Your task to perform on an android device: turn off notifications in google photos Image 0: 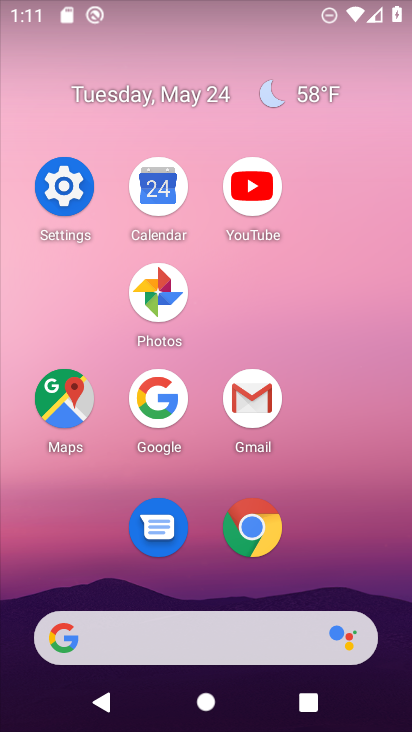
Step 0: click (176, 289)
Your task to perform on an android device: turn off notifications in google photos Image 1: 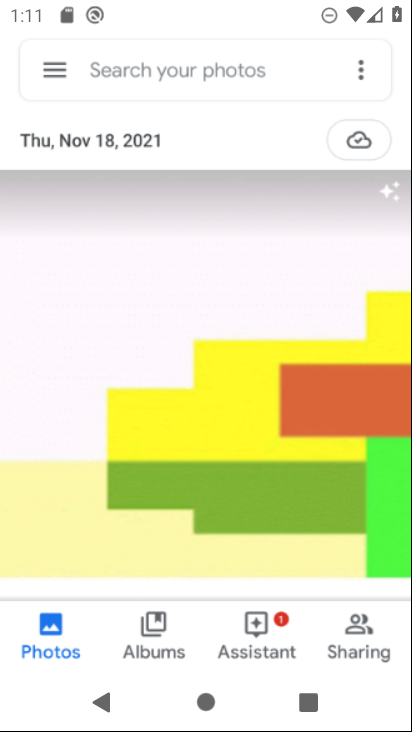
Step 1: click (53, 62)
Your task to perform on an android device: turn off notifications in google photos Image 2: 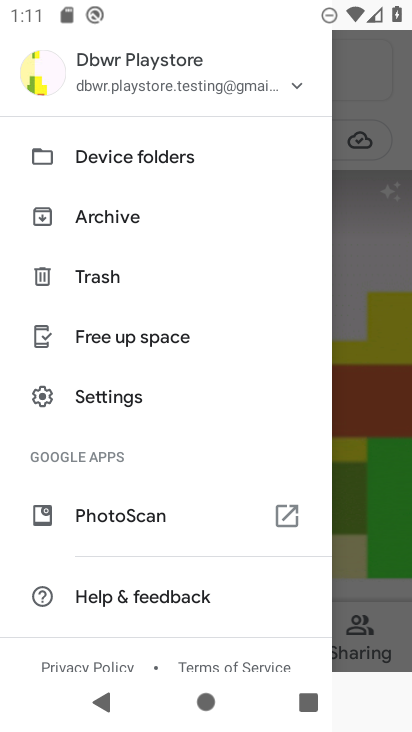
Step 2: click (135, 394)
Your task to perform on an android device: turn off notifications in google photos Image 3: 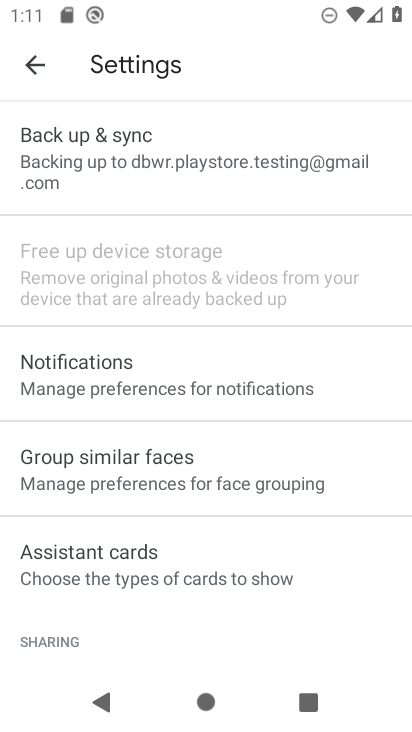
Step 3: click (178, 384)
Your task to perform on an android device: turn off notifications in google photos Image 4: 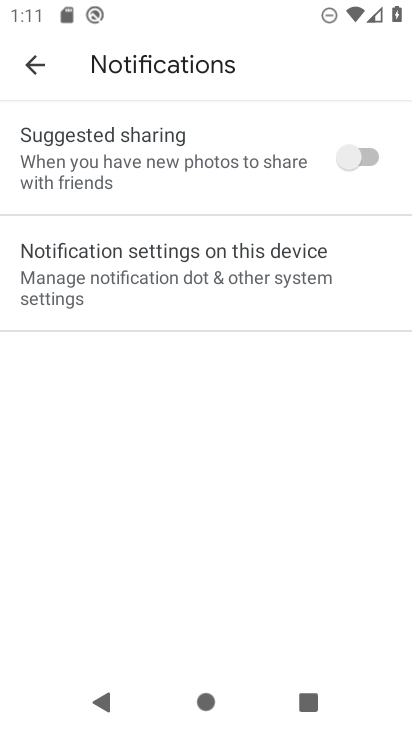
Step 4: click (323, 270)
Your task to perform on an android device: turn off notifications in google photos Image 5: 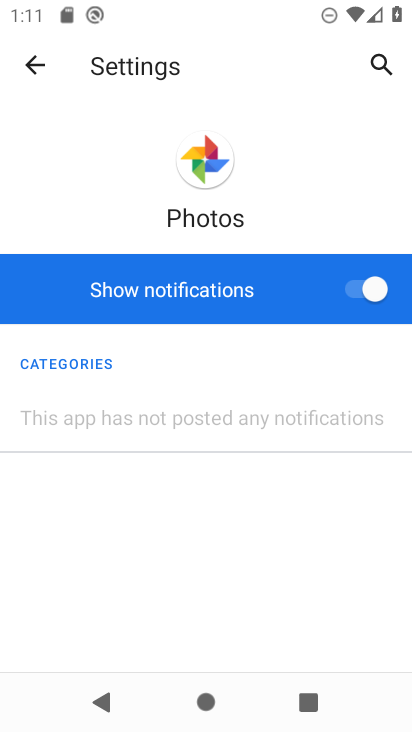
Step 5: click (345, 302)
Your task to perform on an android device: turn off notifications in google photos Image 6: 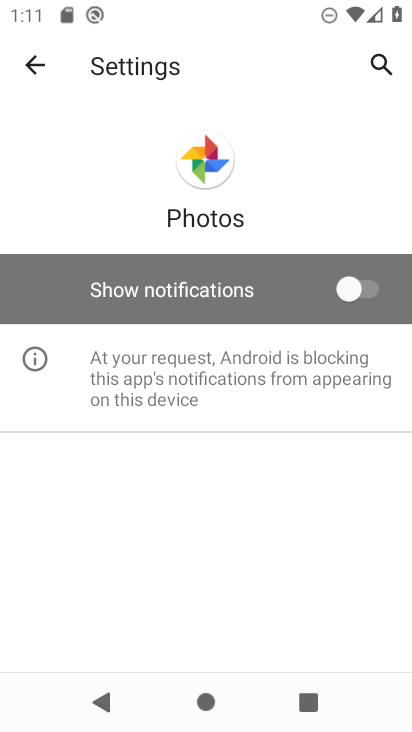
Step 6: task complete